Your task to perform on an android device: change the clock display to digital Image 0: 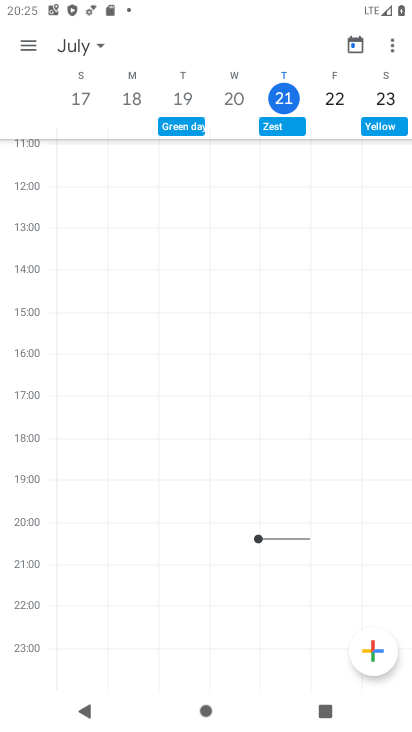
Step 0: press home button
Your task to perform on an android device: change the clock display to digital Image 1: 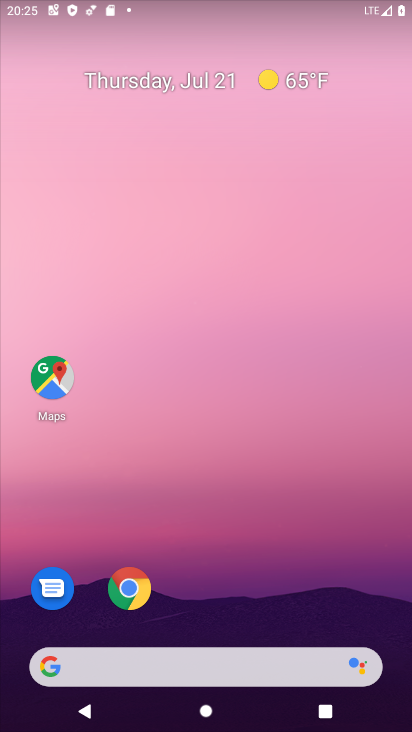
Step 1: drag from (242, 636) to (164, 166)
Your task to perform on an android device: change the clock display to digital Image 2: 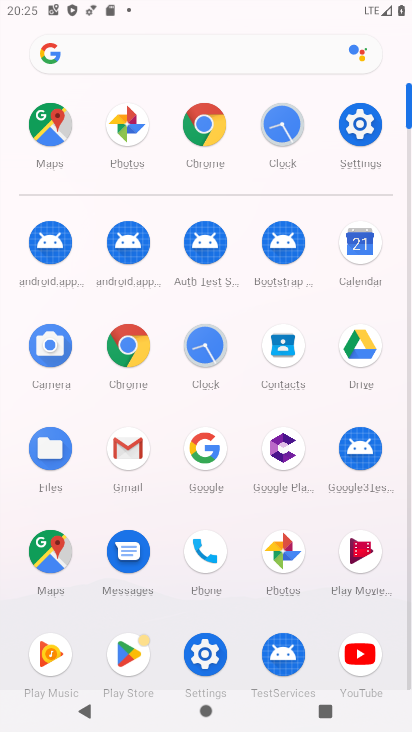
Step 2: click (195, 349)
Your task to perform on an android device: change the clock display to digital Image 3: 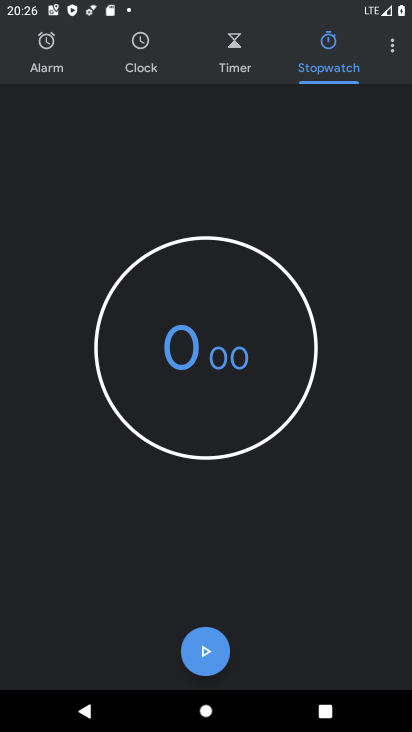
Step 3: click (384, 46)
Your task to perform on an android device: change the clock display to digital Image 4: 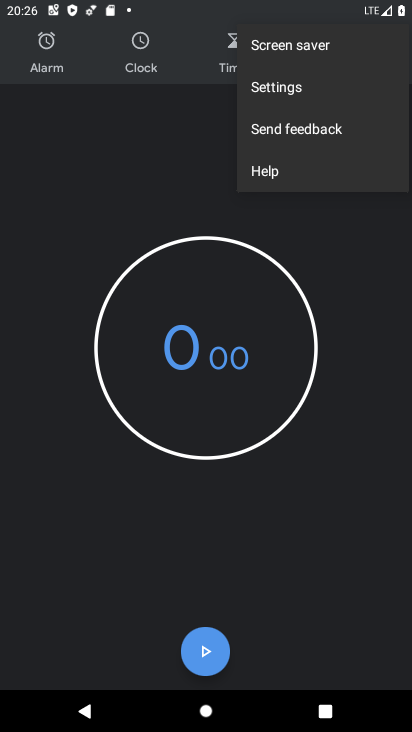
Step 4: click (266, 92)
Your task to perform on an android device: change the clock display to digital Image 5: 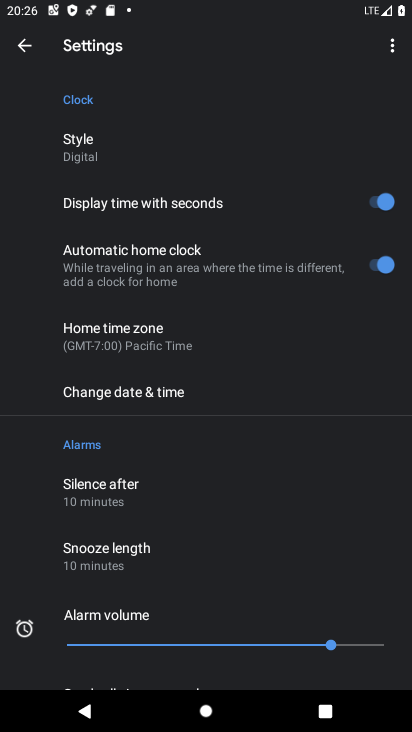
Step 5: click (89, 166)
Your task to perform on an android device: change the clock display to digital Image 6: 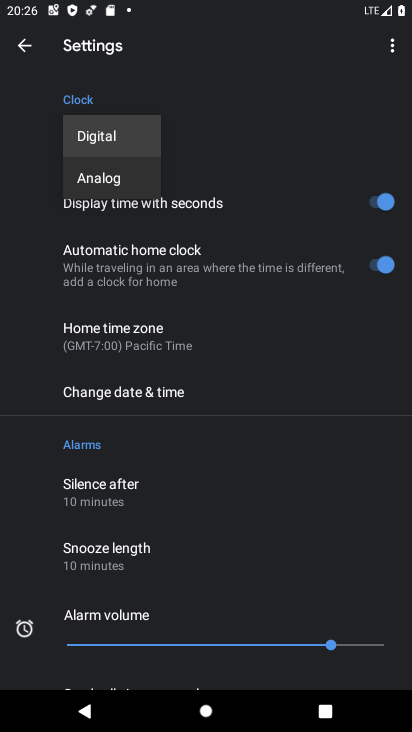
Step 6: click (98, 132)
Your task to perform on an android device: change the clock display to digital Image 7: 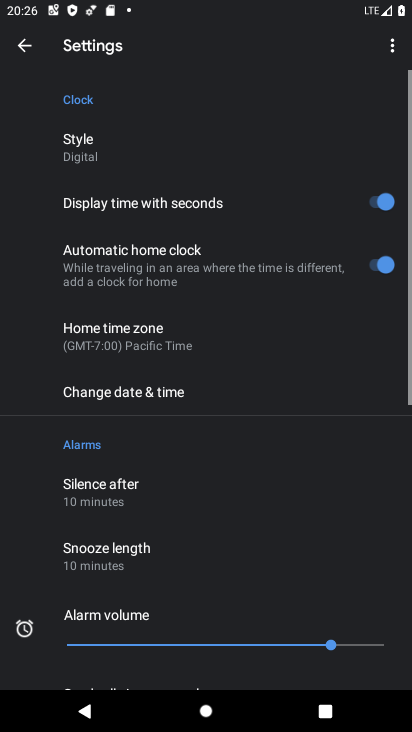
Step 7: task complete